Your task to perform on an android device: Go to battery settings Image 0: 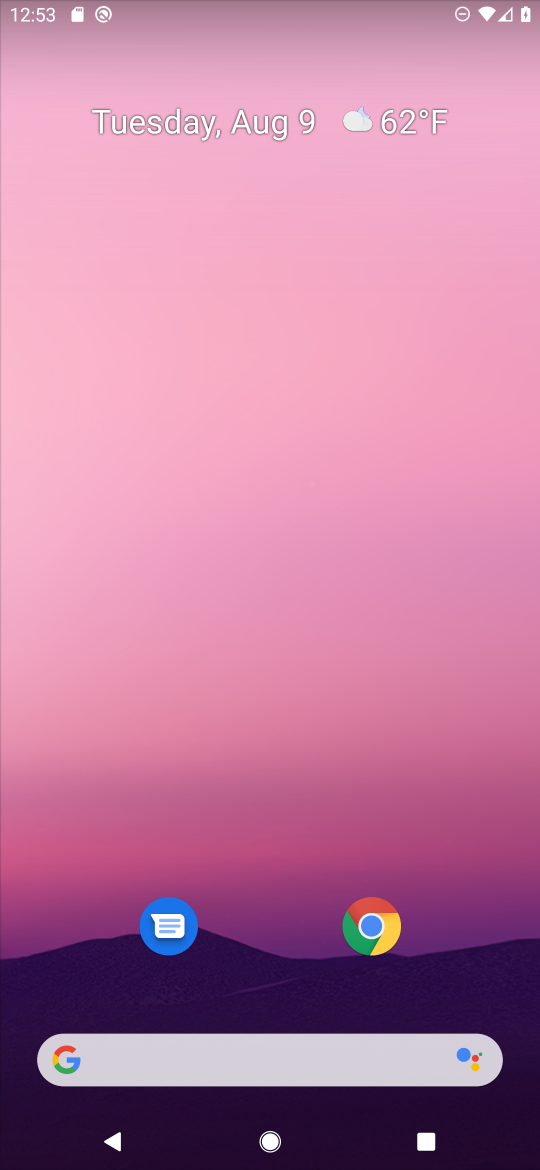
Step 0: click (2, 1043)
Your task to perform on an android device: Go to battery settings Image 1: 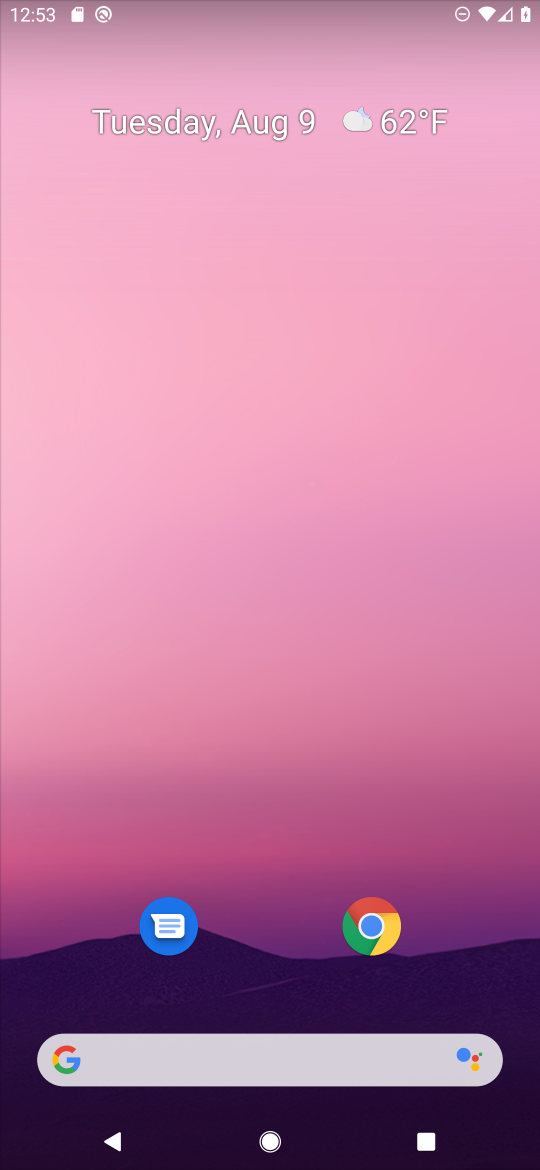
Step 1: click (448, 419)
Your task to perform on an android device: Go to battery settings Image 2: 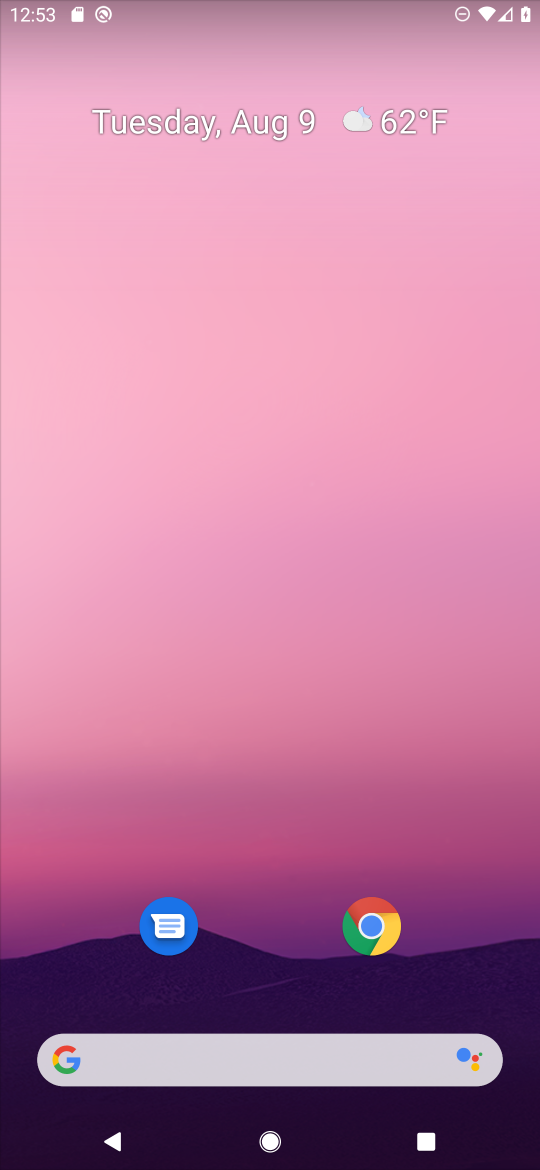
Step 2: drag from (90, 693) to (248, 281)
Your task to perform on an android device: Go to battery settings Image 3: 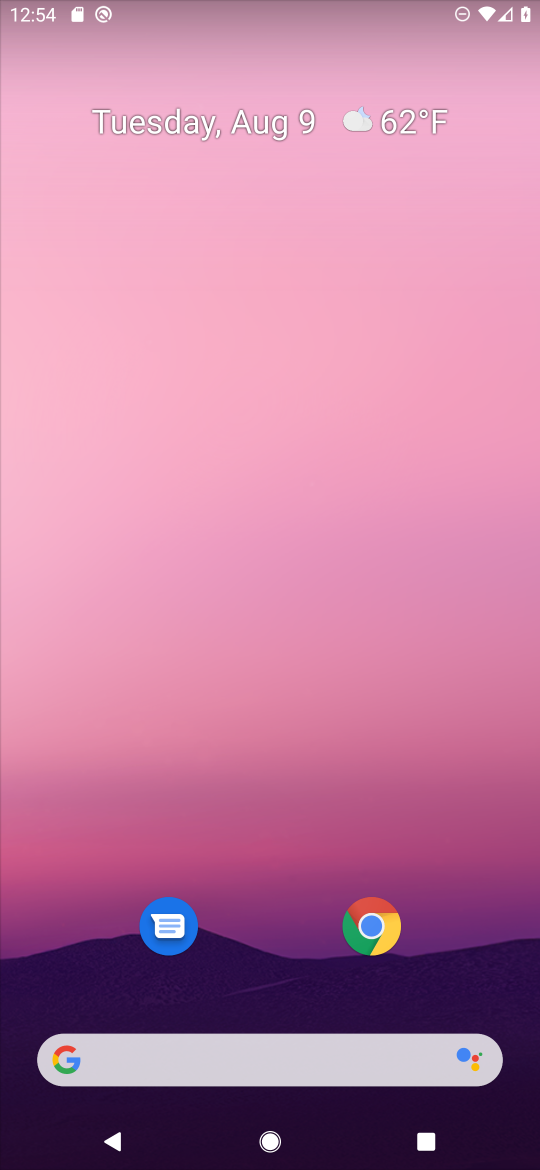
Step 3: drag from (5, 1149) to (297, 167)
Your task to perform on an android device: Go to battery settings Image 4: 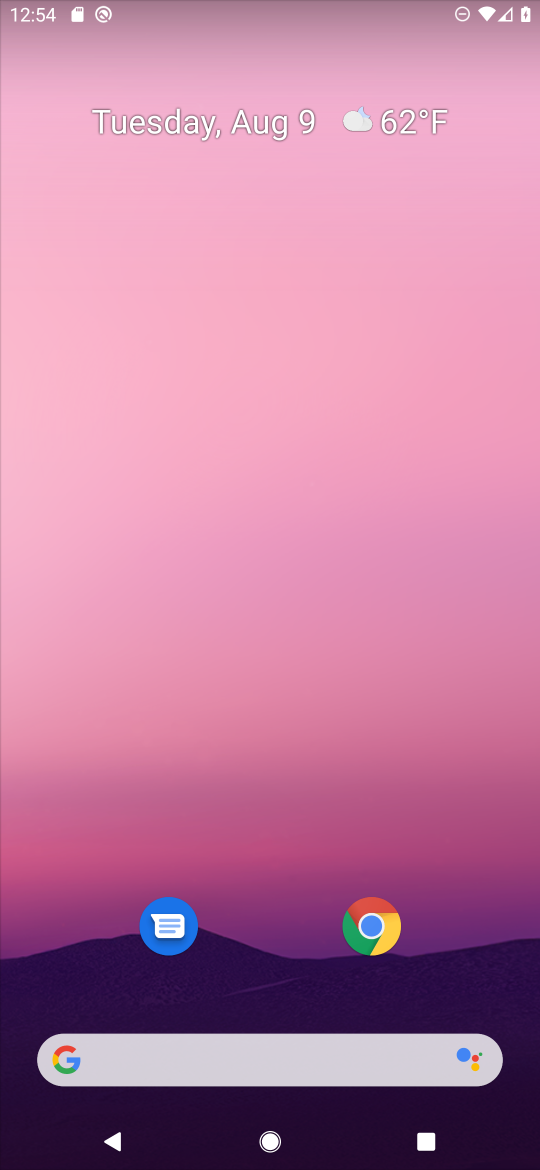
Step 4: drag from (87, 707) to (324, 209)
Your task to perform on an android device: Go to battery settings Image 5: 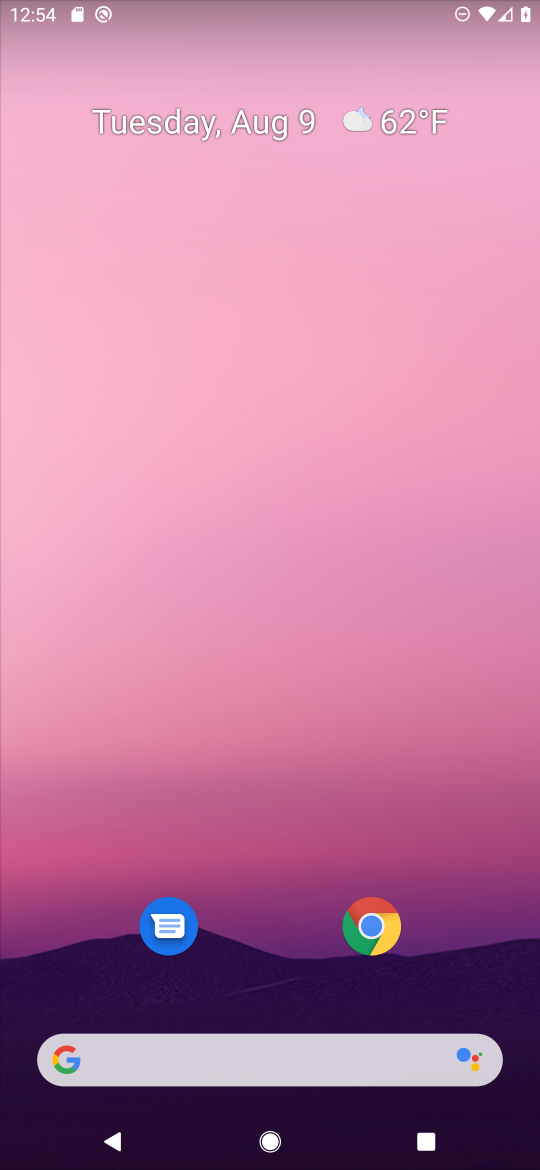
Step 5: drag from (29, 1079) to (354, 192)
Your task to perform on an android device: Go to battery settings Image 6: 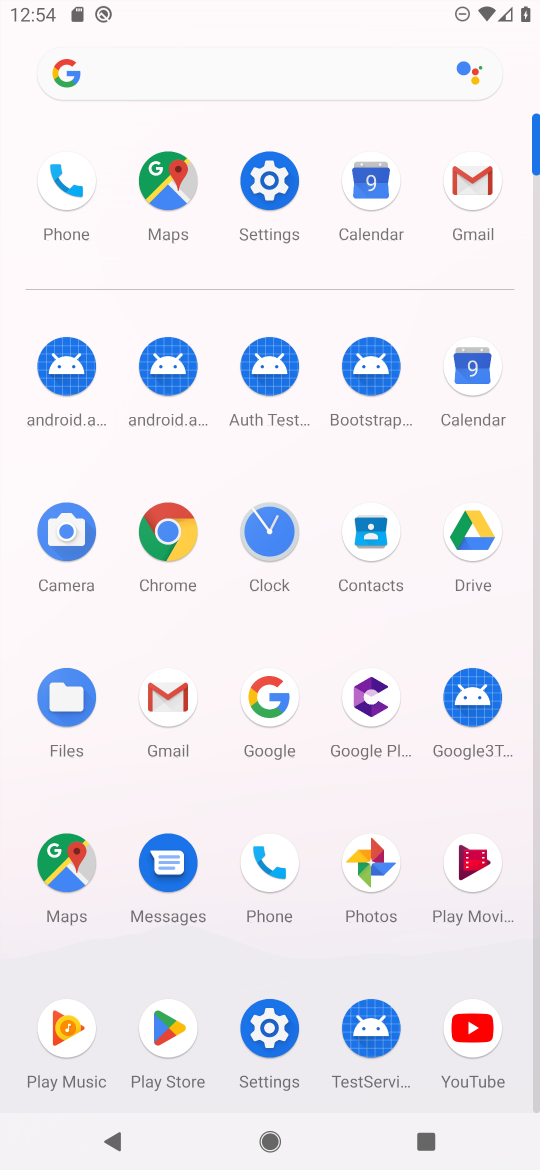
Step 6: click (264, 177)
Your task to perform on an android device: Go to battery settings Image 7: 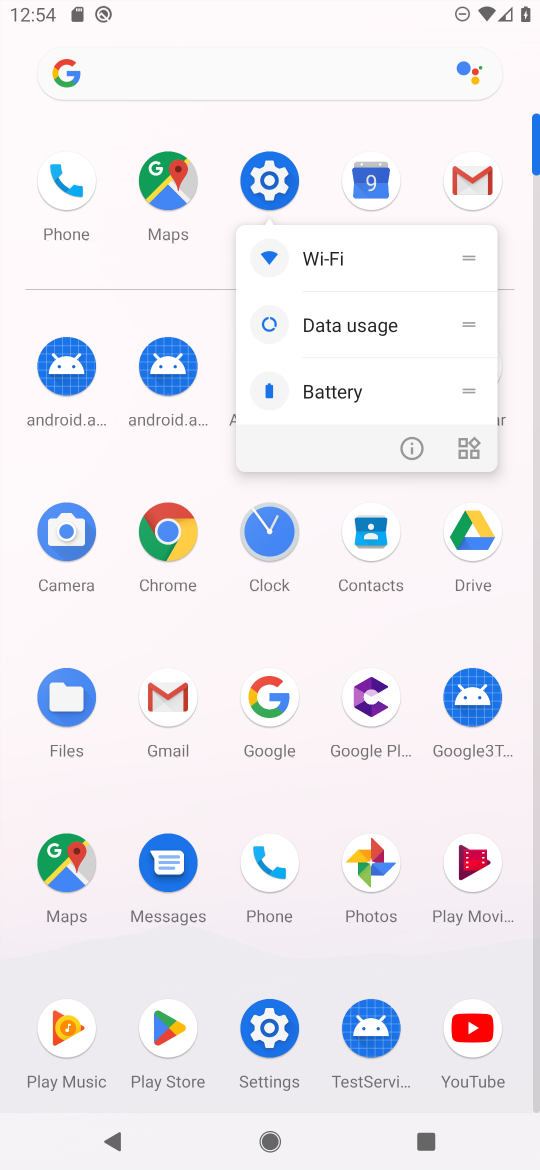
Step 7: click (263, 176)
Your task to perform on an android device: Go to battery settings Image 8: 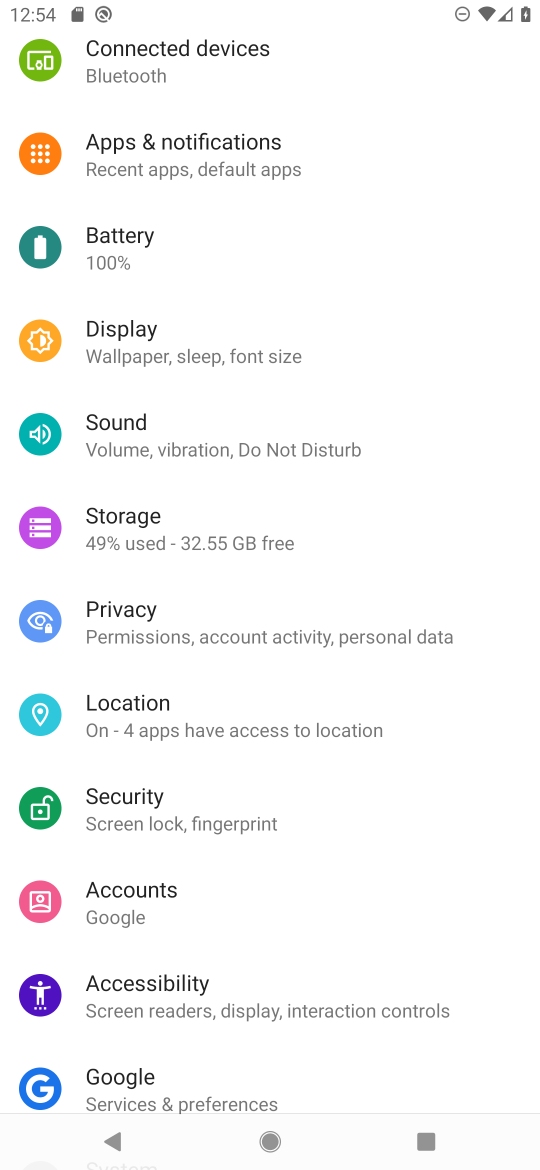
Step 8: click (78, 253)
Your task to perform on an android device: Go to battery settings Image 9: 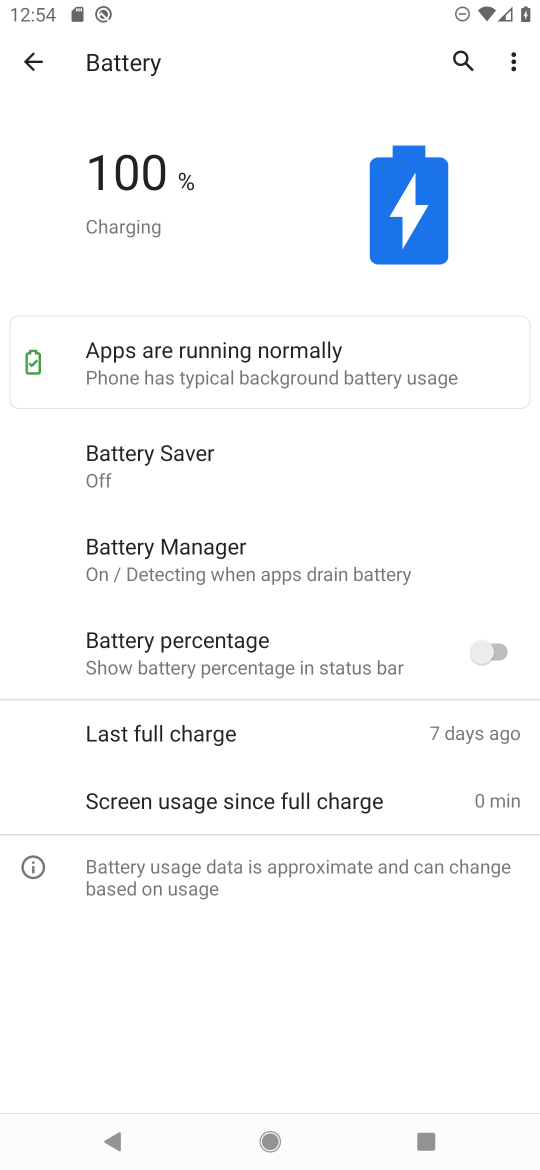
Step 9: task complete